Your task to perform on an android device: Open Chrome and go to settings Image 0: 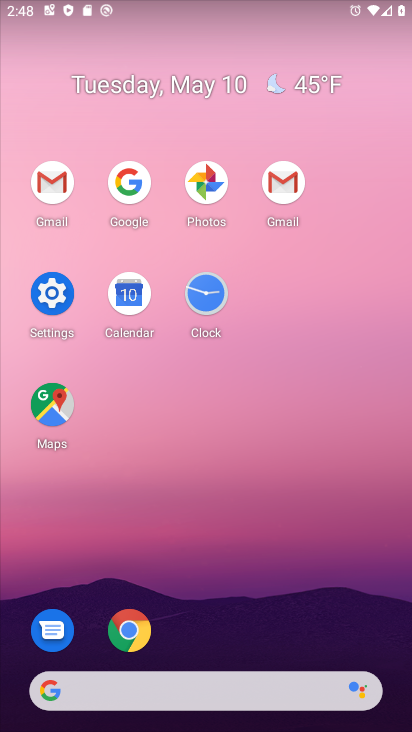
Step 0: click (129, 635)
Your task to perform on an android device: Open Chrome and go to settings Image 1: 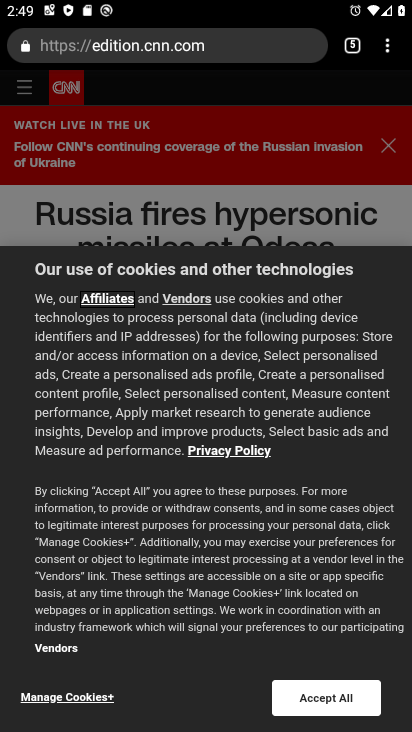
Step 1: click (393, 56)
Your task to perform on an android device: Open Chrome and go to settings Image 2: 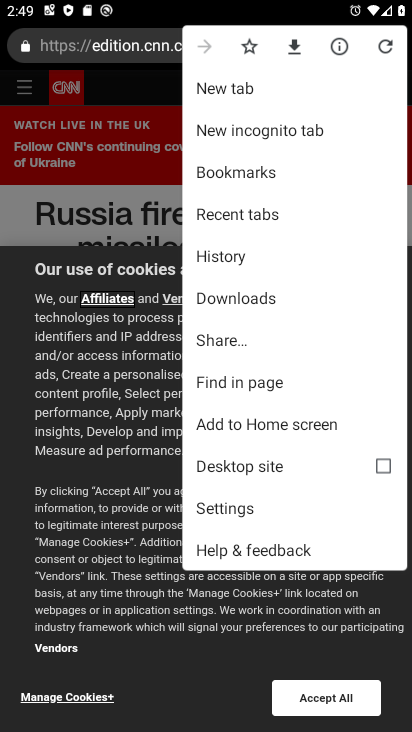
Step 2: click (248, 509)
Your task to perform on an android device: Open Chrome and go to settings Image 3: 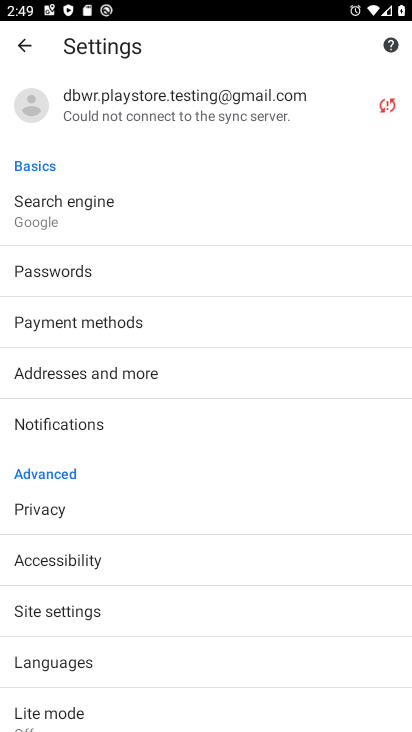
Step 3: task complete